Your task to perform on an android device: Search for panasonic triple a on walmart.com, select the first entry, add it to the cart, then select checkout. Image 0: 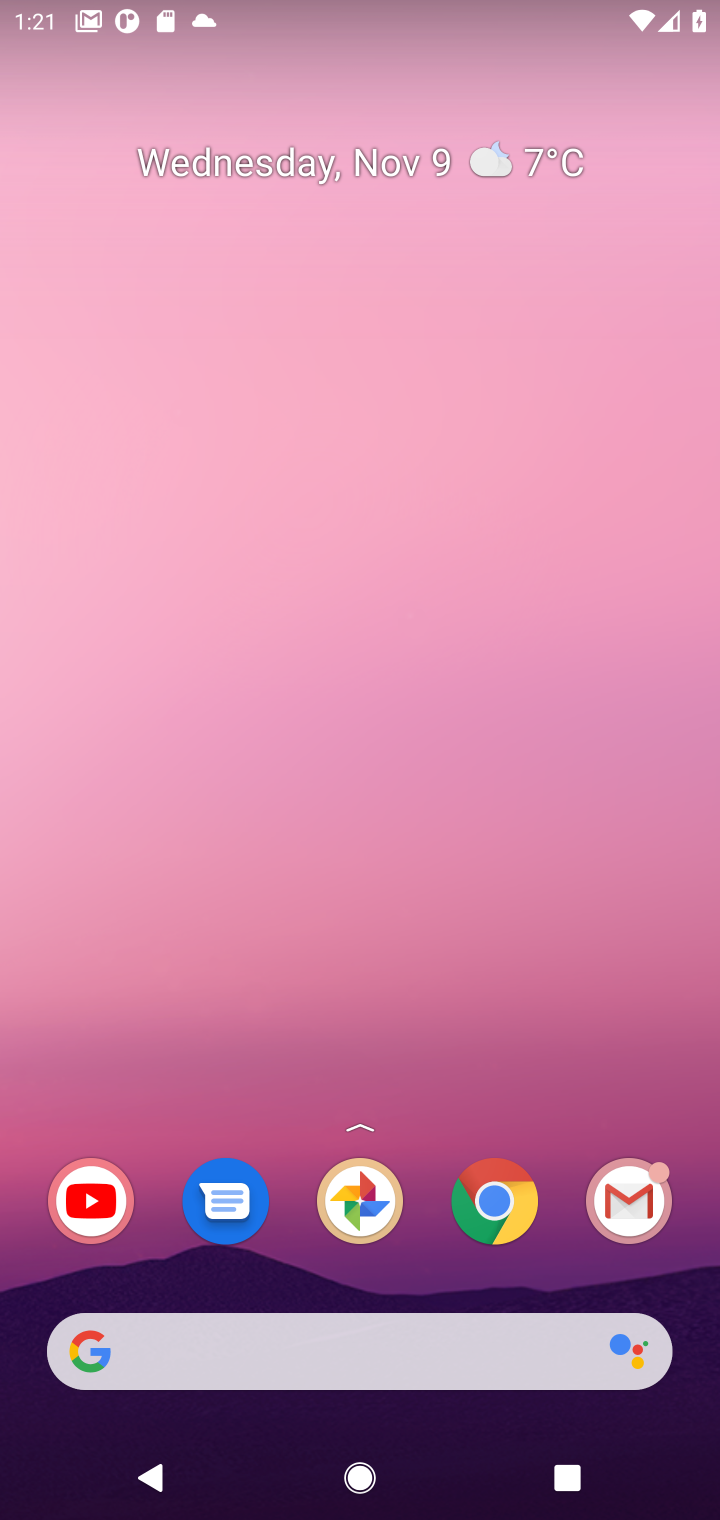
Step 0: click (351, 1330)
Your task to perform on an android device: Search for panasonic triple a on walmart.com, select the first entry, add it to the cart, then select checkout. Image 1: 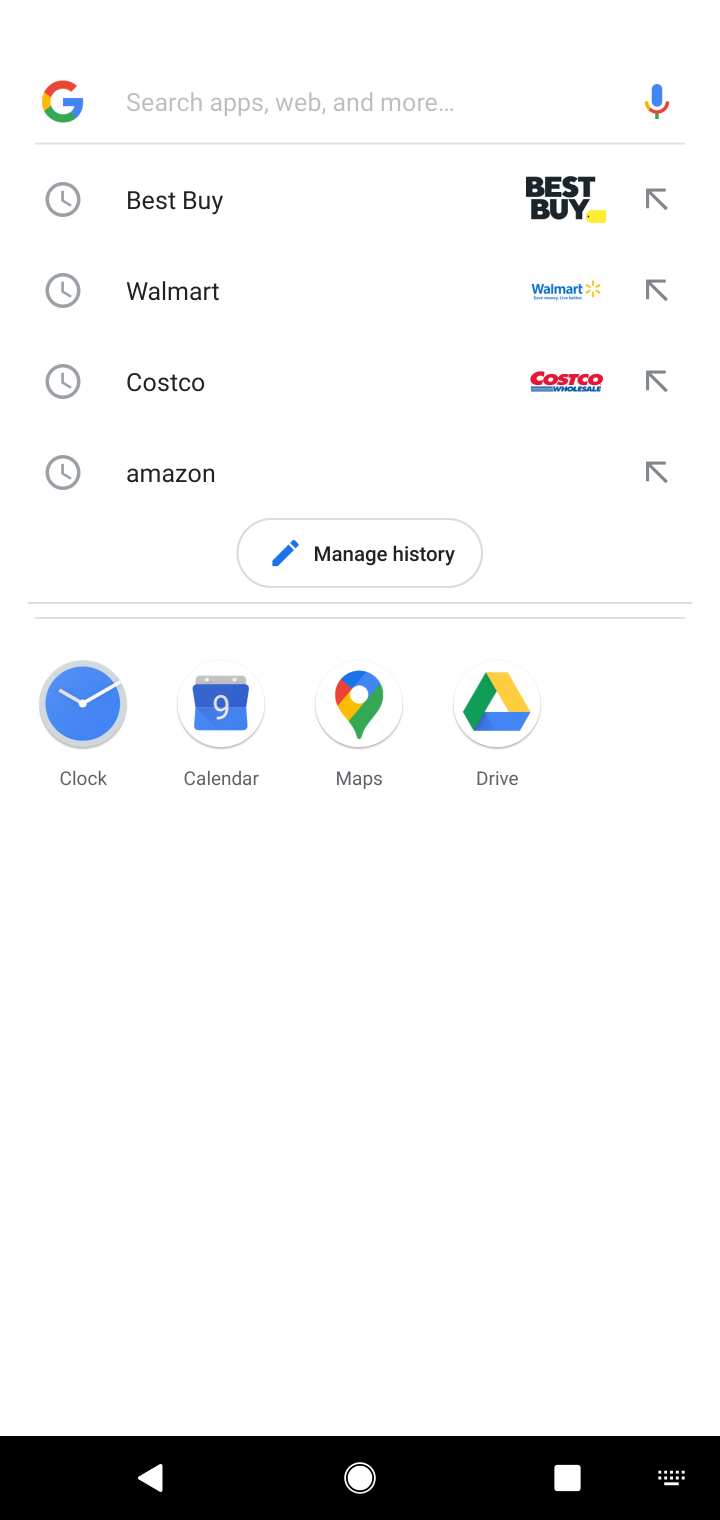
Step 1: click (363, 288)
Your task to perform on an android device: Search for panasonic triple a on walmart.com, select the first entry, add it to the cart, then select checkout. Image 2: 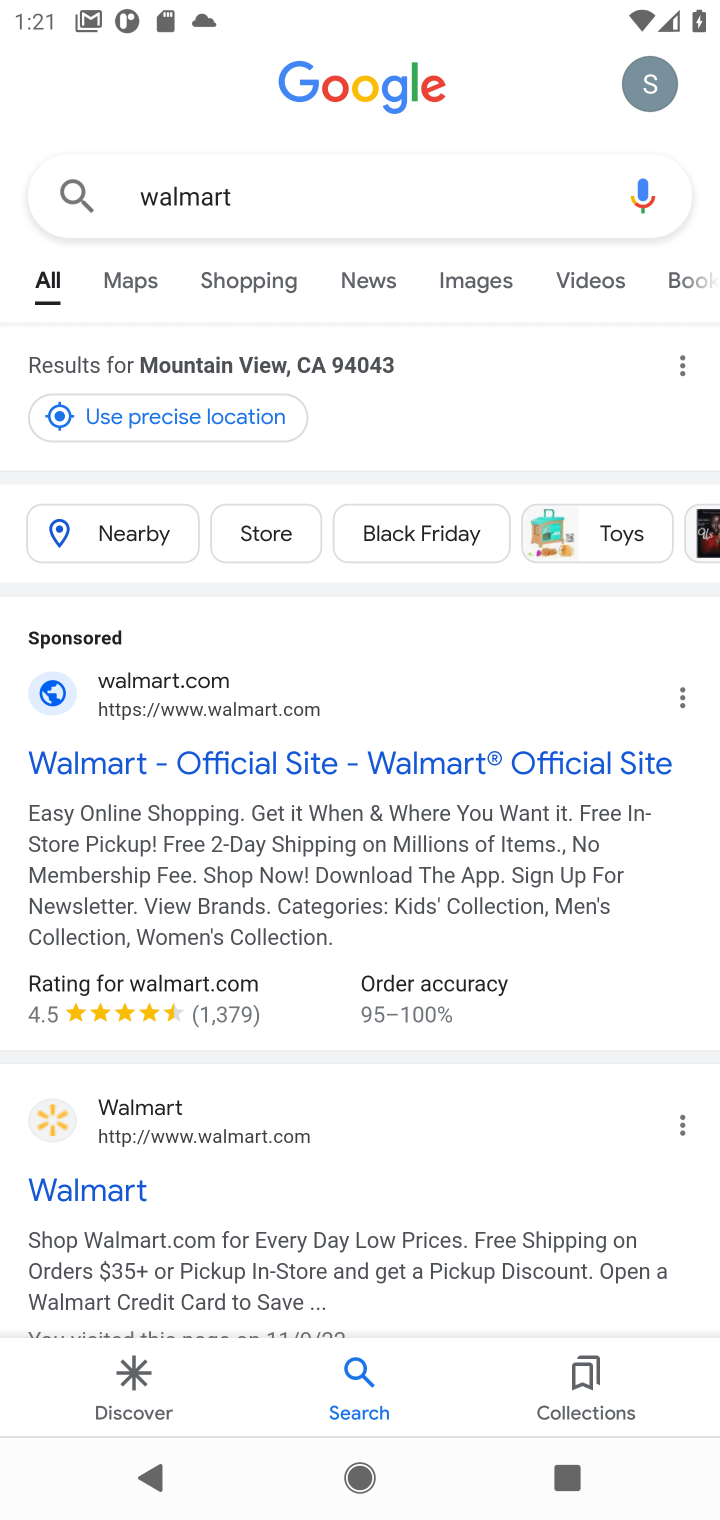
Step 2: click (97, 1196)
Your task to perform on an android device: Search for panasonic triple a on walmart.com, select the first entry, add it to the cart, then select checkout. Image 3: 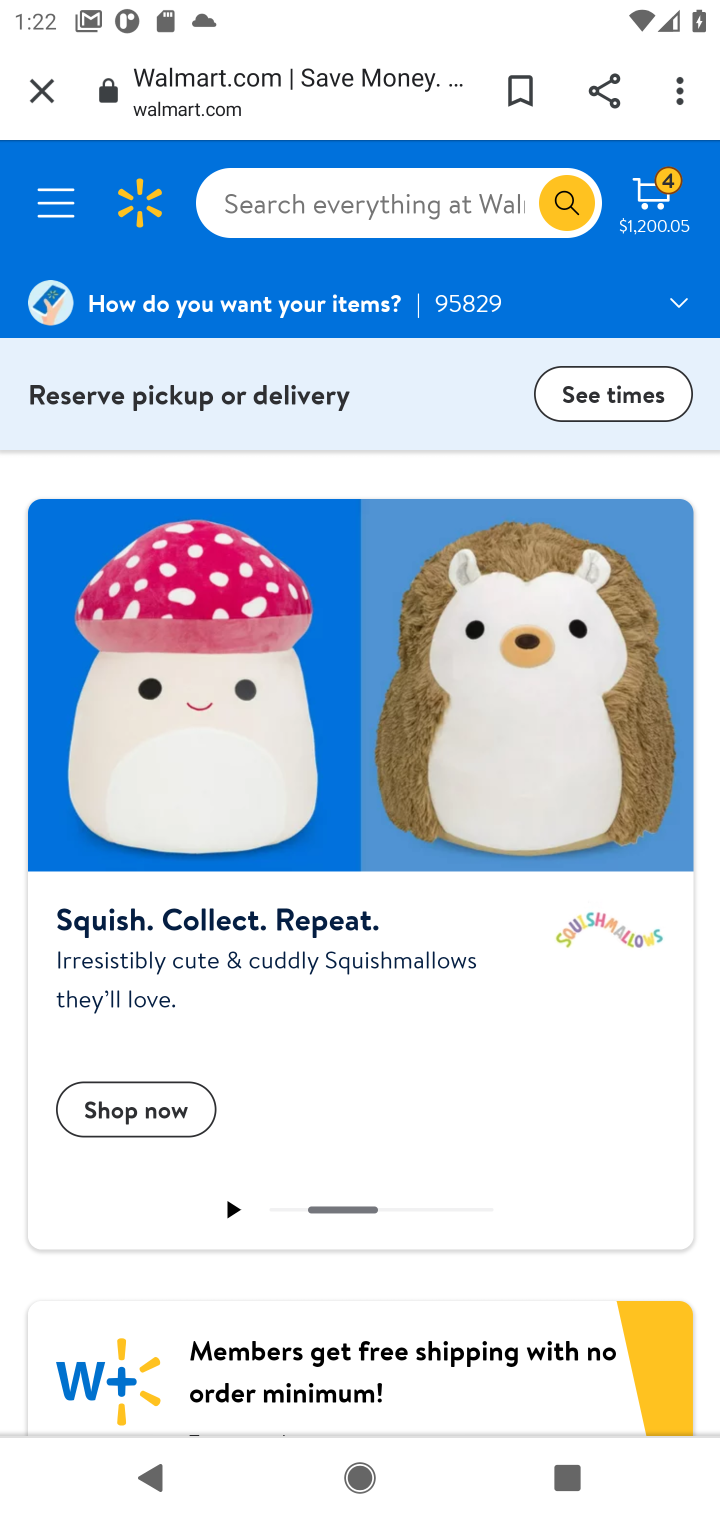
Step 3: click (445, 187)
Your task to perform on an android device: Search for panasonic triple a on walmart.com, select the first entry, add it to the cart, then select checkout. Image 4: 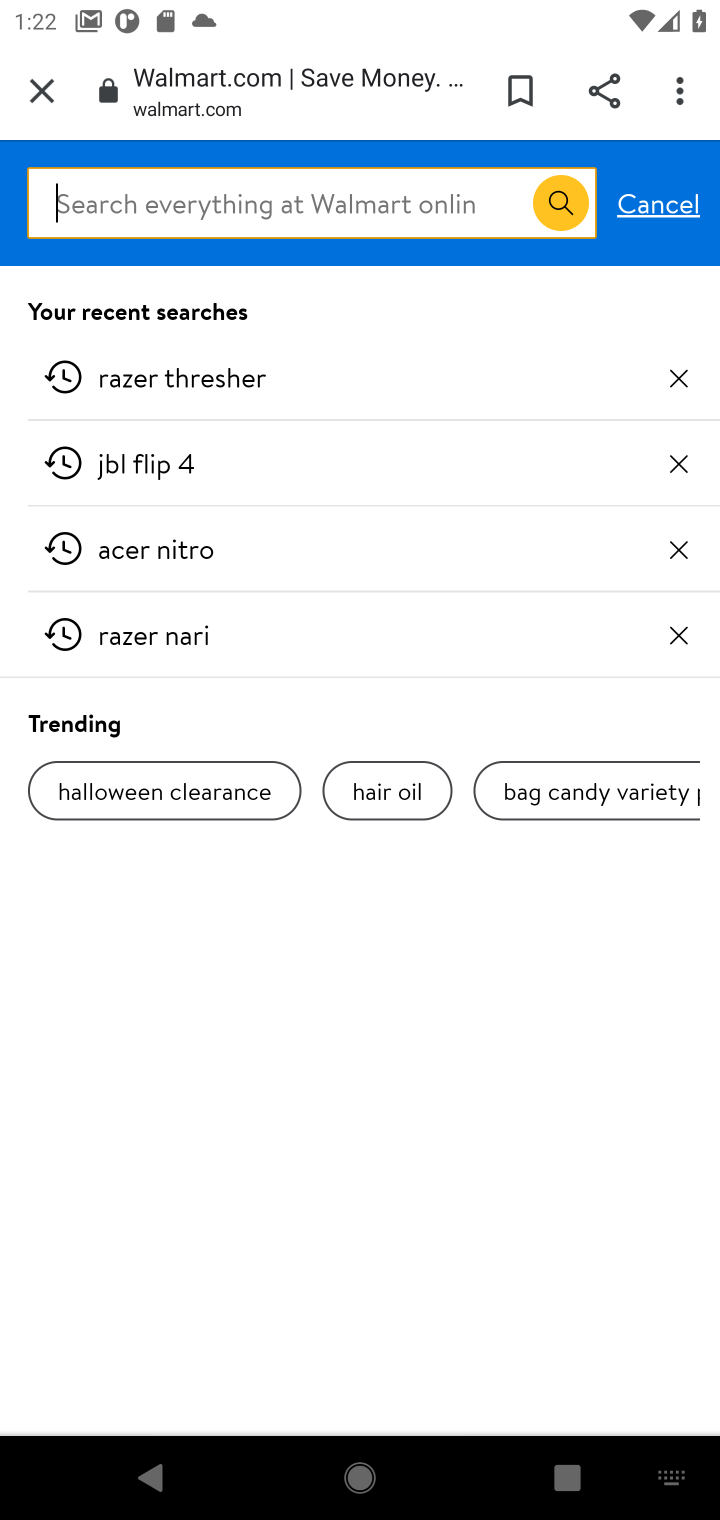
Step 4: type "panasonic triple a "
Your task to perform on an android device: Search for panasonic triple a on walmart.com, select the first entry, add it to the cart, then select checkout. Image 5: 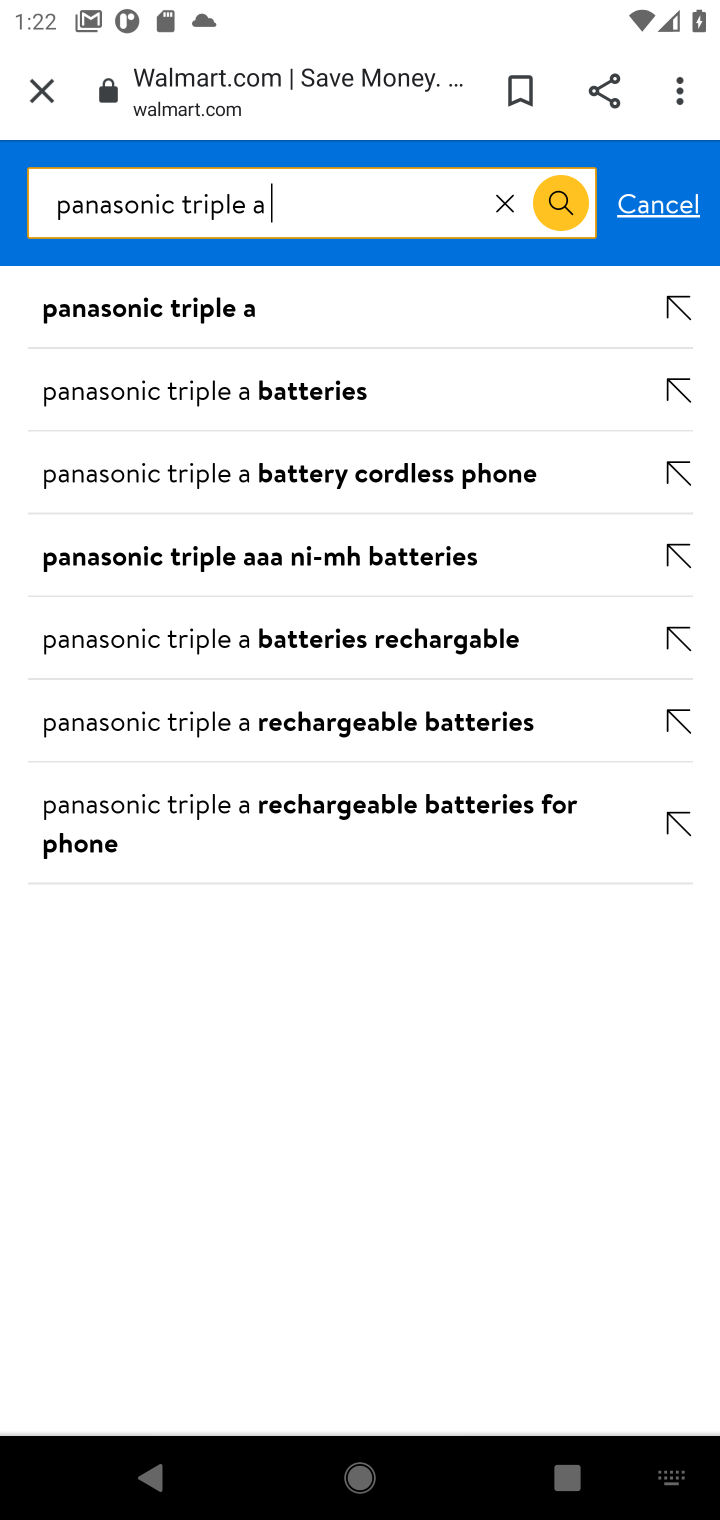
Step 5: click (223, 304)
Your task to perform on an android device: Search for panasonic triple a on walmart.com, select the first entry, add it to the cart, then select checkout. Image 6: 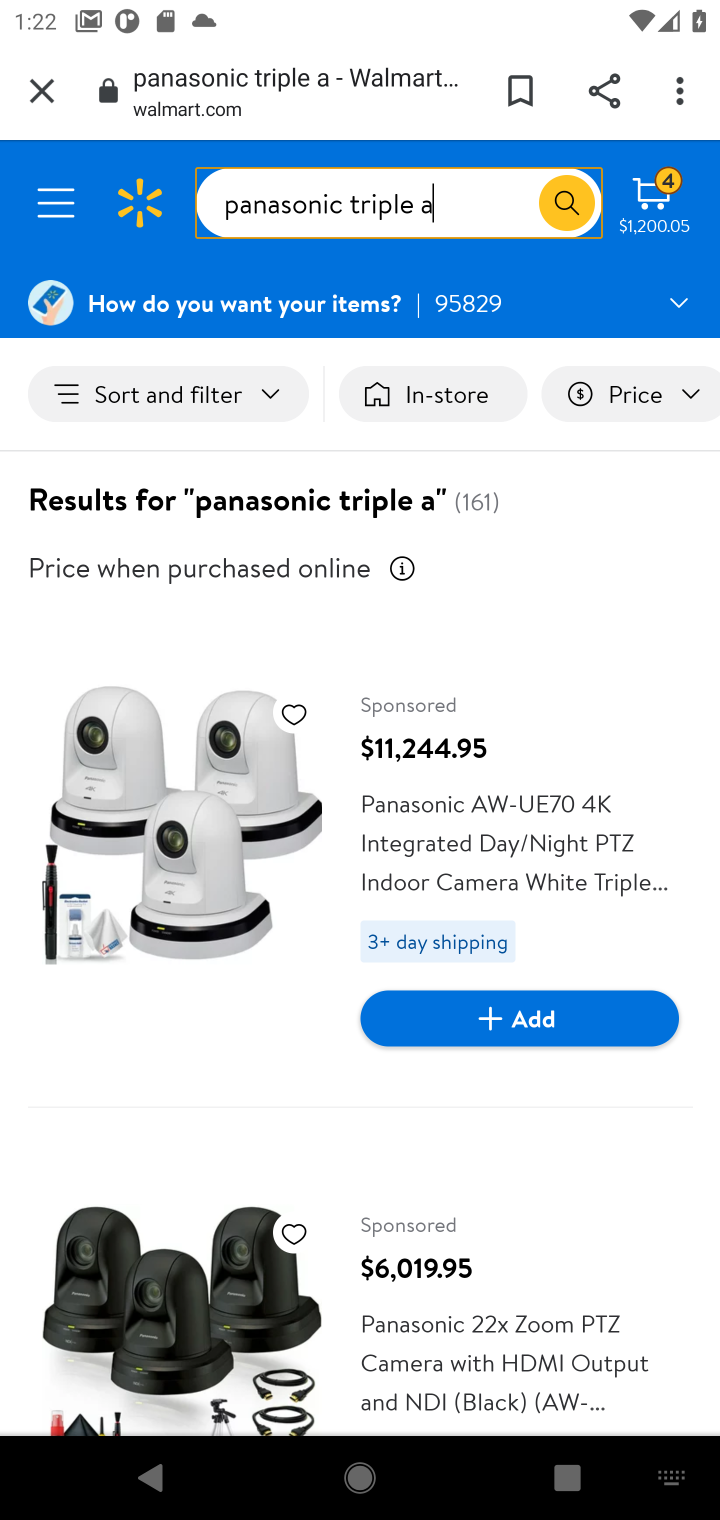
Step 6: click (518, 1013)
Your task to perform on an android device: Search for panasonic triple a on walmart.com, select the first entry, add it to the cart, then select checkout. Image 7: 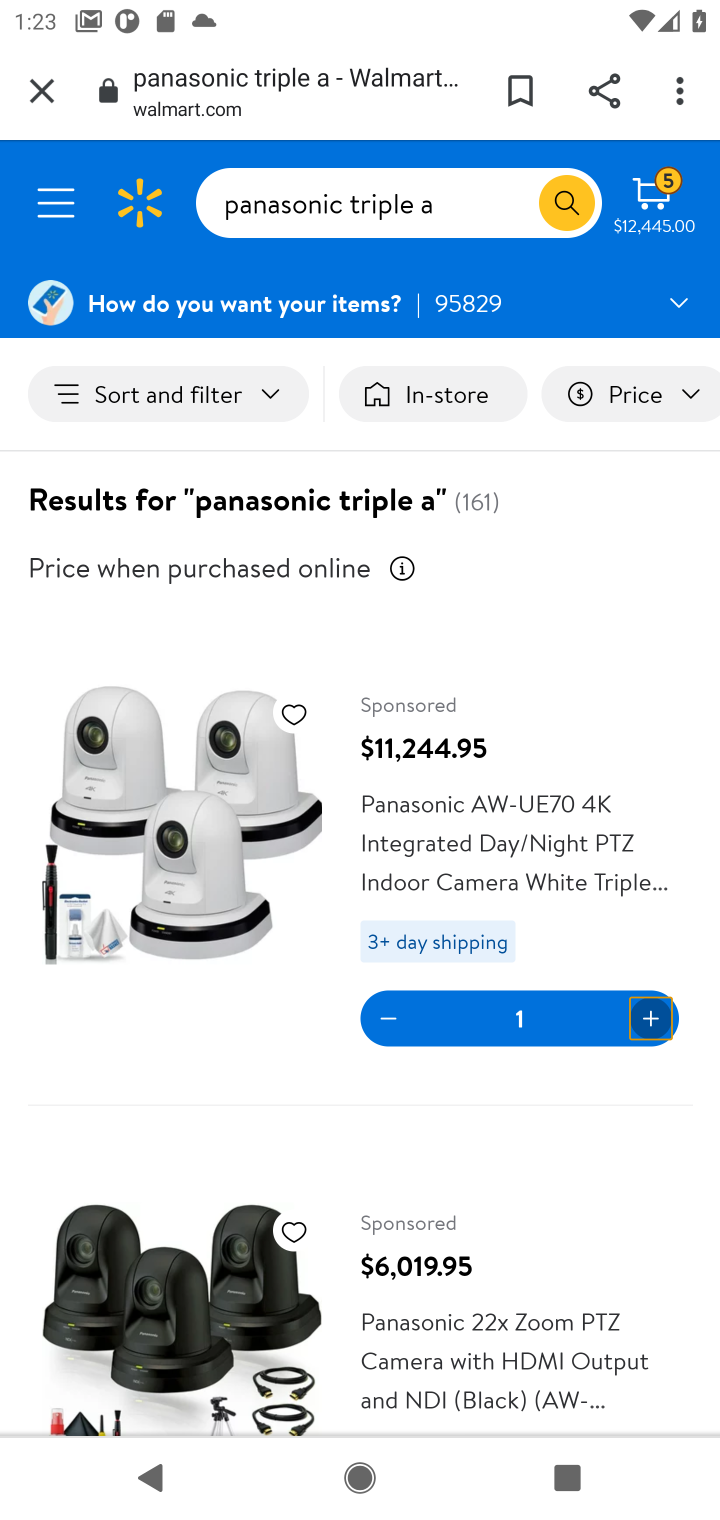
Step 7: click (660, 210)
Your task to perform on an android device: Search for panasonic triple a on walmart.com, select the first entry, add it to the cart, then select checkout. Image 8: 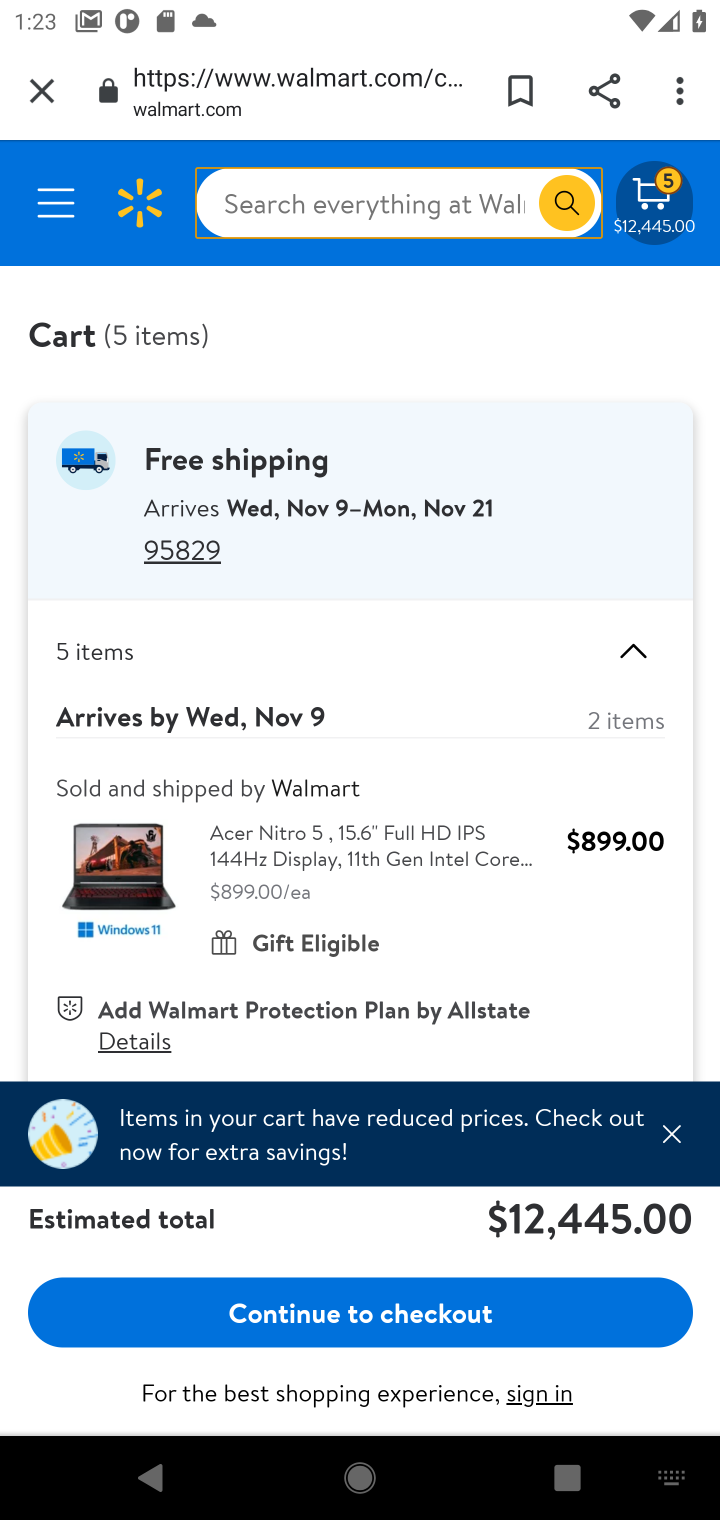
Step 8: click (384, 1311)
Your task to perform on an android device: Search for panasonic triple a on walmart.com, select the first entry, add it to the cart, then select checkout. Image 9: 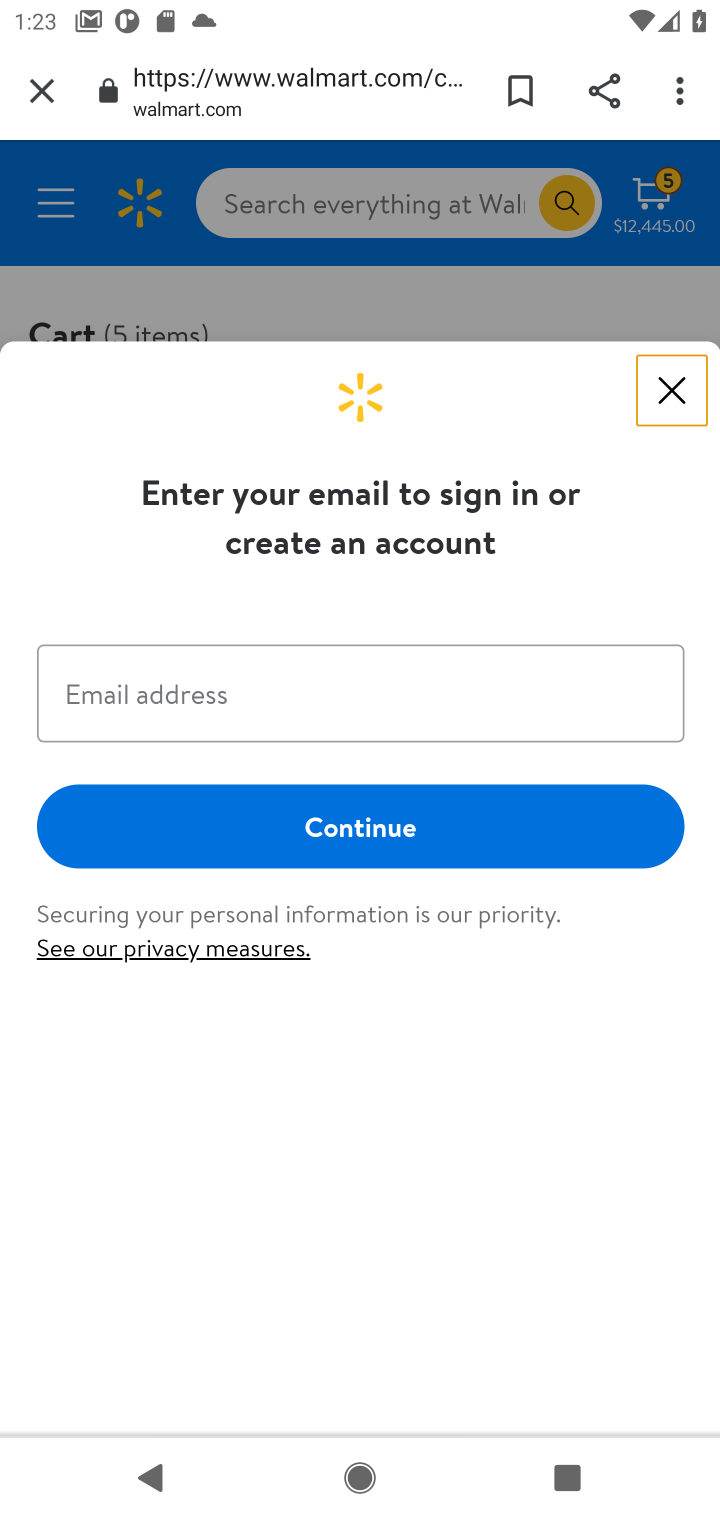
Step 9: task complete